Your task to perform on an android device: snooze an email in the gmail app Image 0: 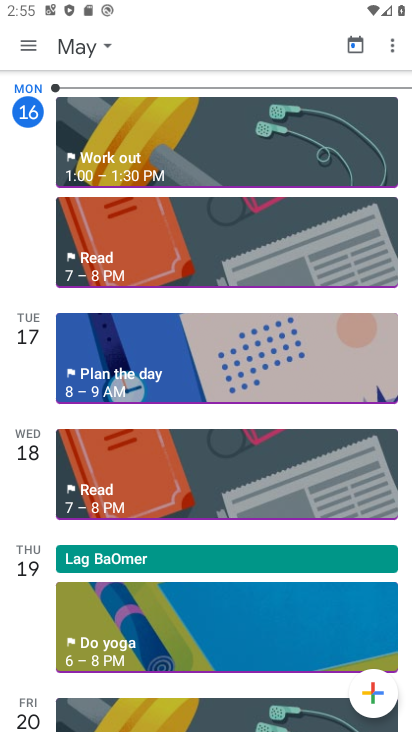
Step 0: press back button
Your task to perform on an android device: snooze an email in the gmail app Image 1: 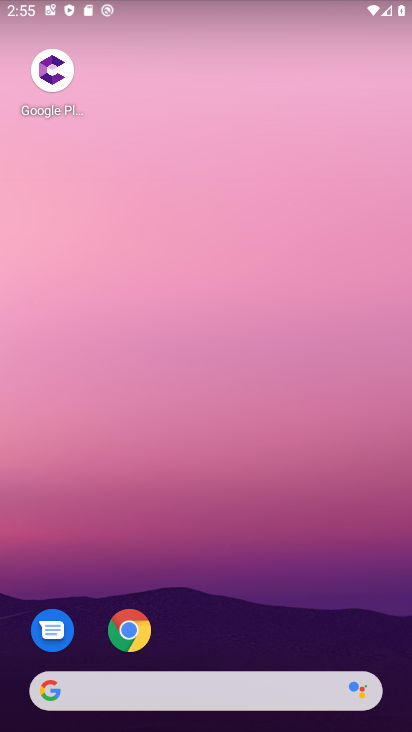
Step 1: drag from (301, 594) to (261, 33)
Your task to perform on an android device: snooze an email in the gmail app Image 2: 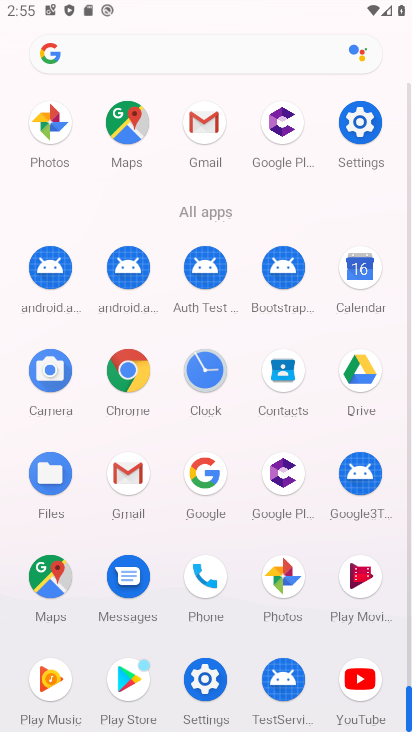
Step 2: click (127, 469)
Your task to perform on an android device: snooze an email in the gmail app Image 3: 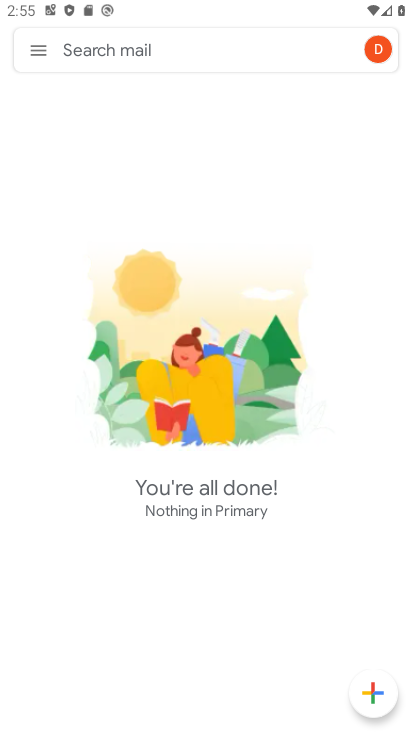
Step 3: click (41, 47)
Your task to perform on an android device: snooze an email in the gmail app Image 4: 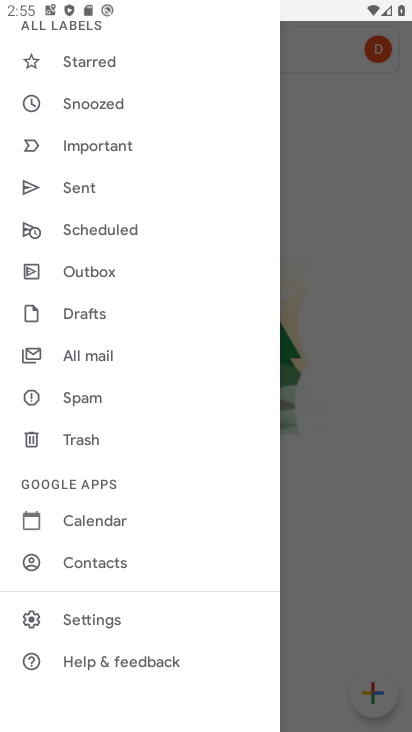
Step 4: click (110, 101)
Your task to perform on an android device: snooze an email in the gmail app Image 5: 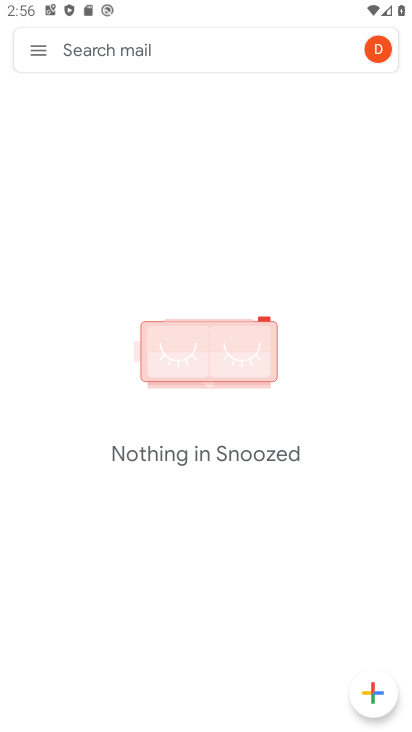
Step 5: task complete